Your task to perform on an android device: change alarm snooze length Image 0: 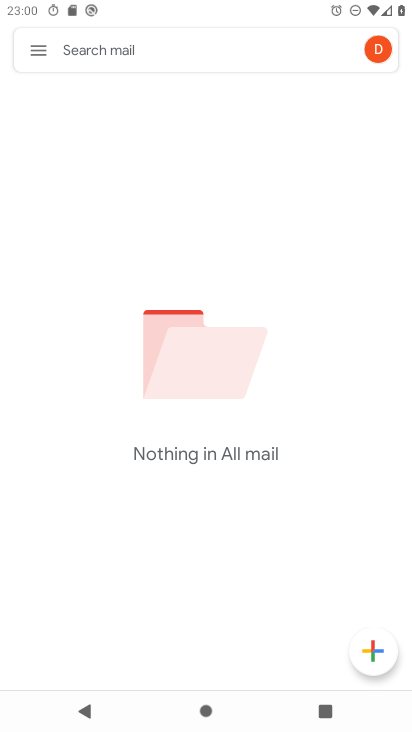
Step 0: press home button
Your task to perform on an android device: change alarm snooze length Image 1: 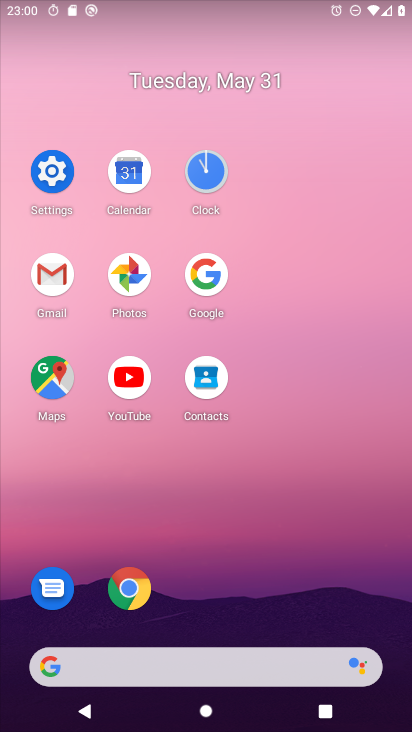
Step 1: click (215, 166)
Your task to perform on an android device: change alarm snooze length Image 2: 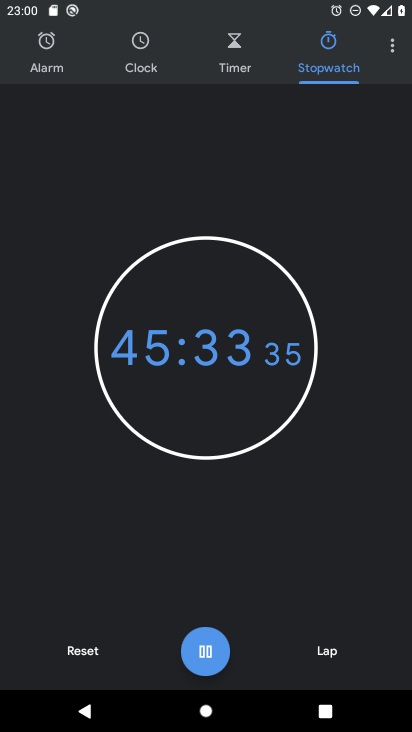
Step 2: click (394, 41)
Your task to perform on an android device: change alarm snooze length Image 3: 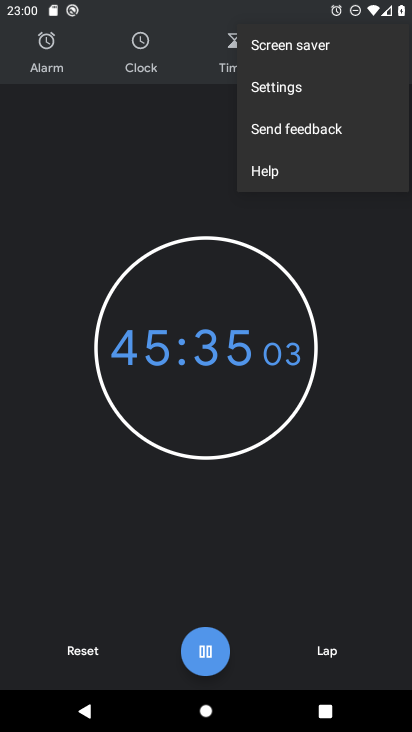
Step 3: click (307, 87)
Your task to perform on an android device: change alarm snooze length Image 4: 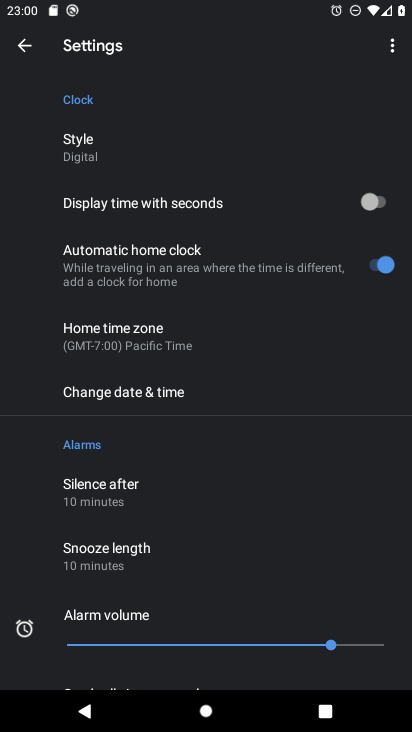
Step 4: drag from (185, 468) to (183, 221)
Your task to perform on an android device: change alarm snooze length Image 5: 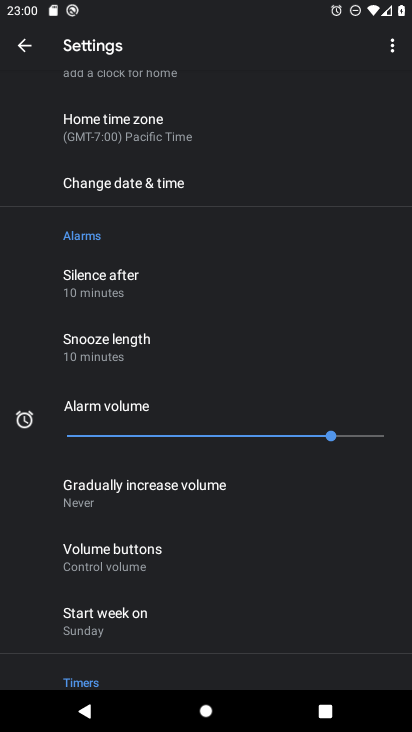
Step 5: drag from (133, 549) to (142, 219)
Your task to perform on an android device: change alarm snooze length Image 6: 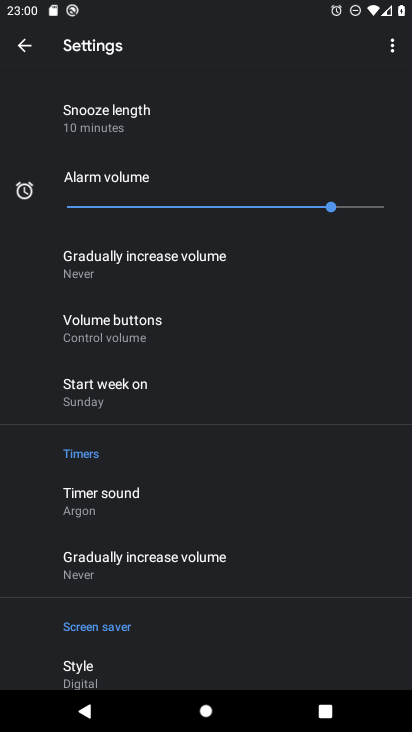
Step 6: click (137, 129)
Your task to perform on an android device: change alarm snooze length Image 7: 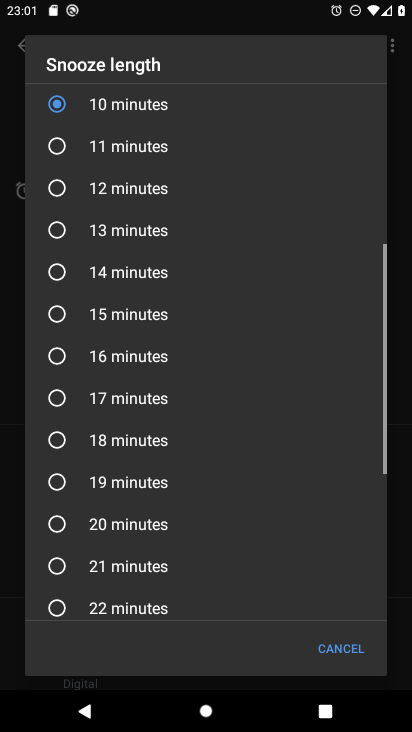
Step 7: click (137, 149)
Your task to perform on an android device: change alarm snooze length Image 8: 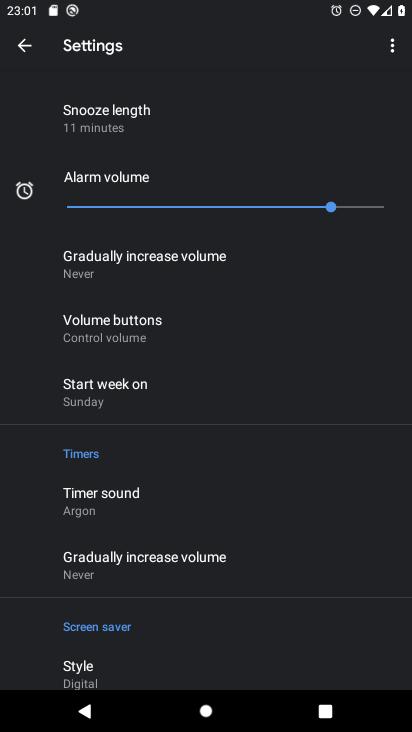
Step 8: task complete